Your task to perform on an android device: Open Google Chrome and open the bookmarks view Image 0: 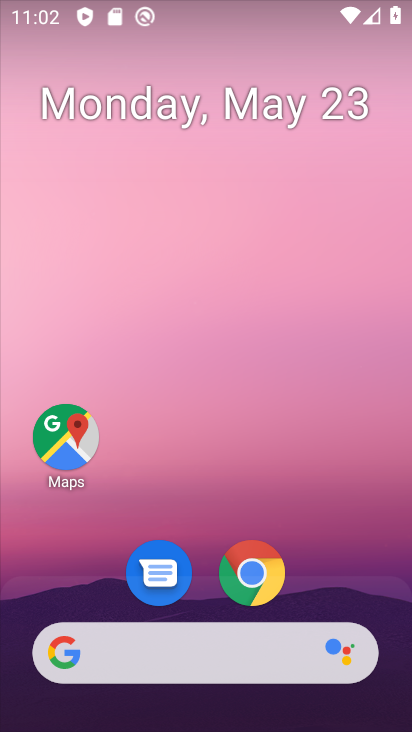
Step 0: click (255, 570)
Your task to perform on an android device: Open Google Chrome and open the bookmarks view Image 1: 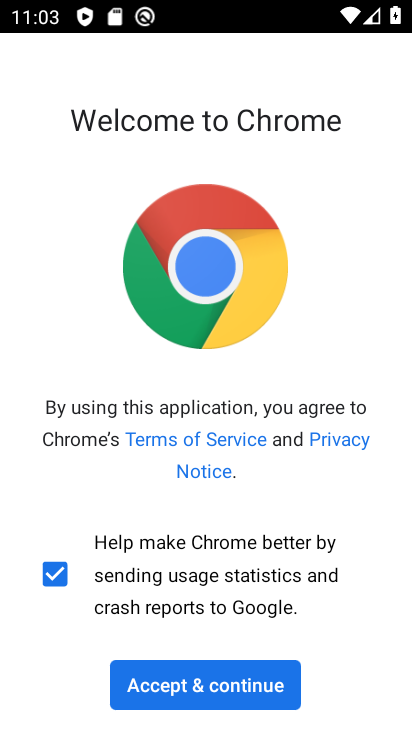
Step 1: click (199, 682)
Your task to perform on an android device: Open Google Chrome and open the bookmarks view Image 2: 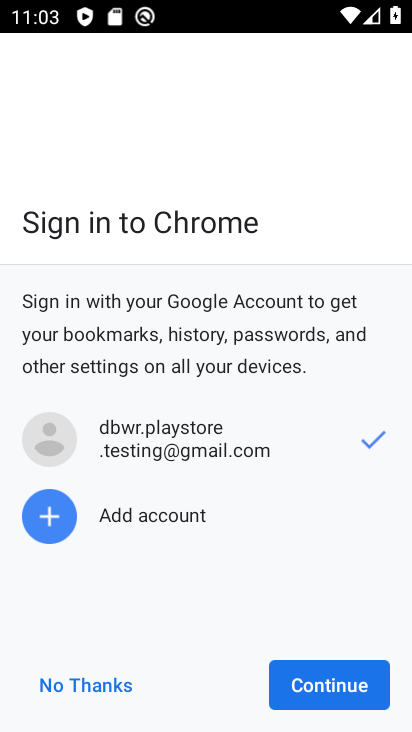
Step 2: click (323, 681)
Your task to perform on an android device: Open Google Chrome and open the bookmarks view Image 3: 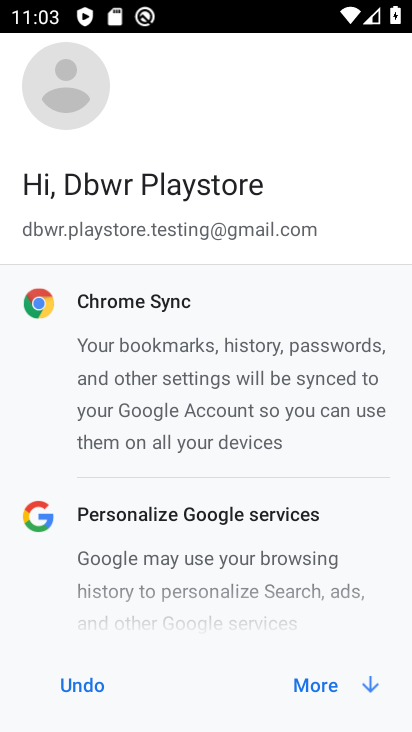
Step 3: click (323, 681)
Your task to perform on an android device: Open Google Chrome and open the bookmarks view Image 4: 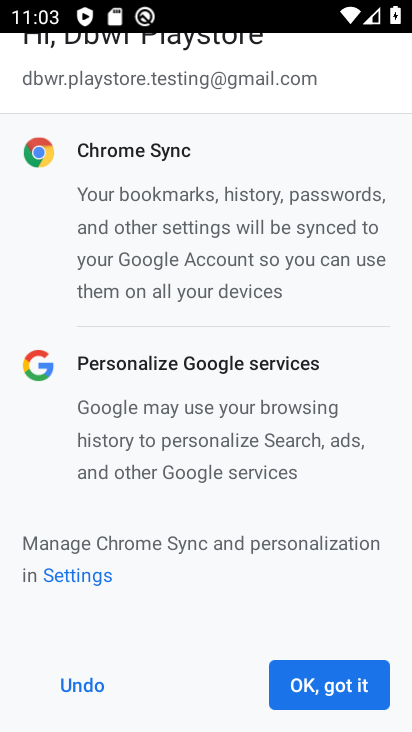
Step 4: click (323, 681)
Your task to perform on an android device: Open Google Chrome and open the bookmarks view Image 5: 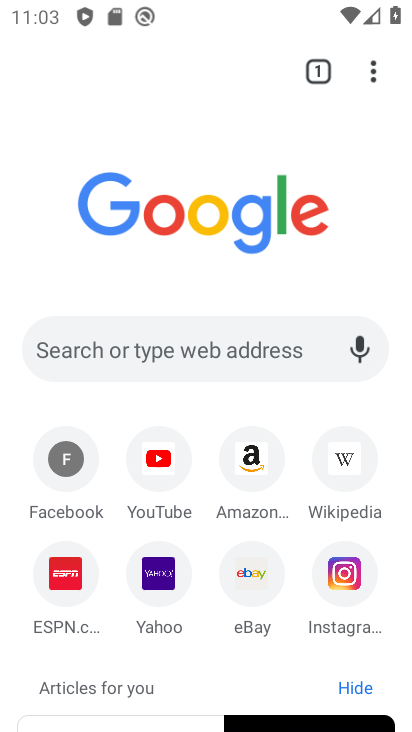
Step 5: click (375, 69)
Your task to perform on an android device: Open Google Chrome and open the bookmarks view Image 6: 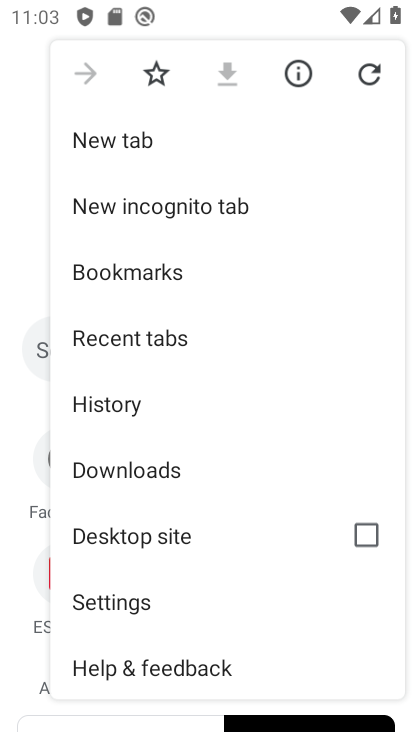
Step 6: click (174, 279)
Your task to perform on an android device: Open Google Chrome and open the bookmarks view Image 7: 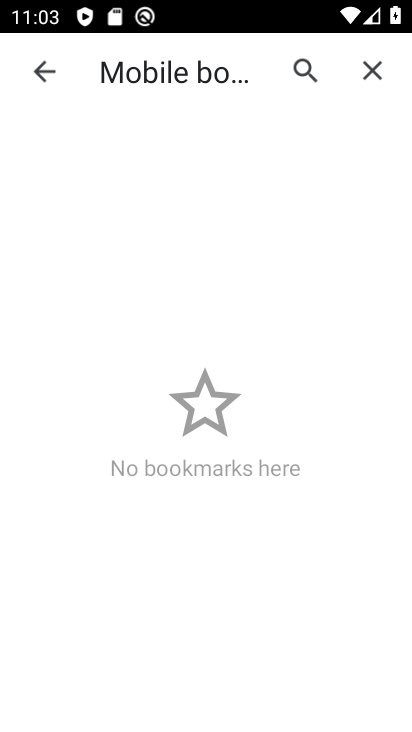
Step 7: task complete